Your task to perform on an android device: delete the emails in spam in the gmail app Image 0: 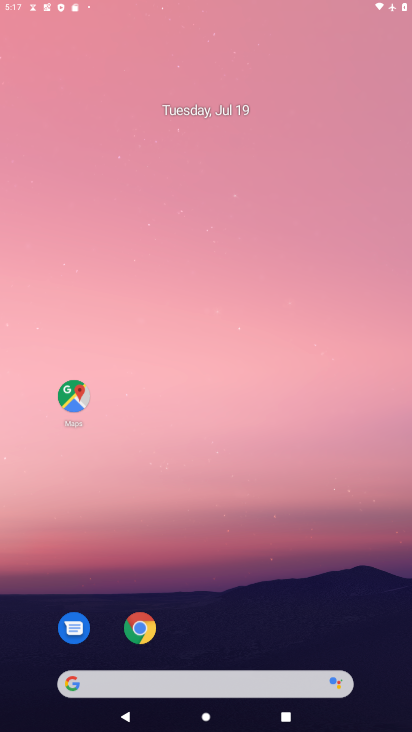
Step 0: press home button
Your task to perform on an android device: delete the emails in spam in the gmail app Image 1: 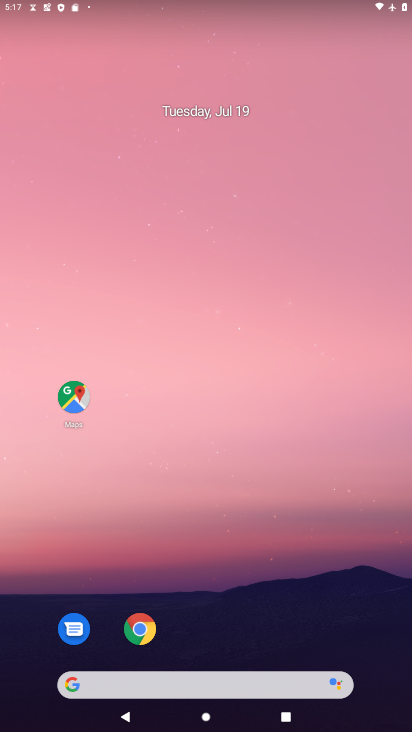
Step 1: drag from (231, 632) to (206, 14)
Your task to perform on an android device: delete the emails in spam in the gmail app Image 2: 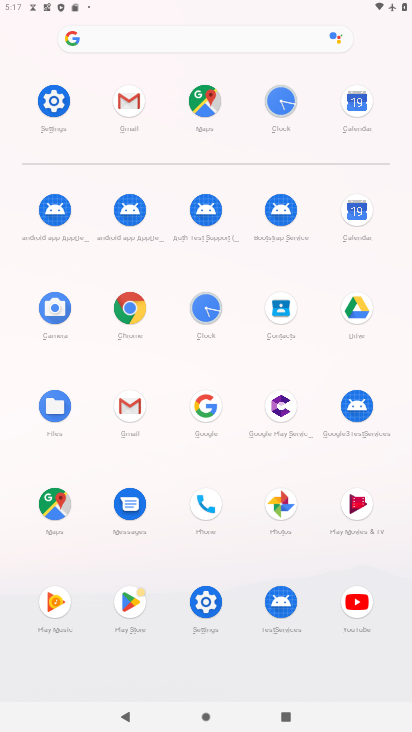
Step 2: click (128, 410)
Your task to perform on an android device: delete the emails in spam in the gmail app Image 3: 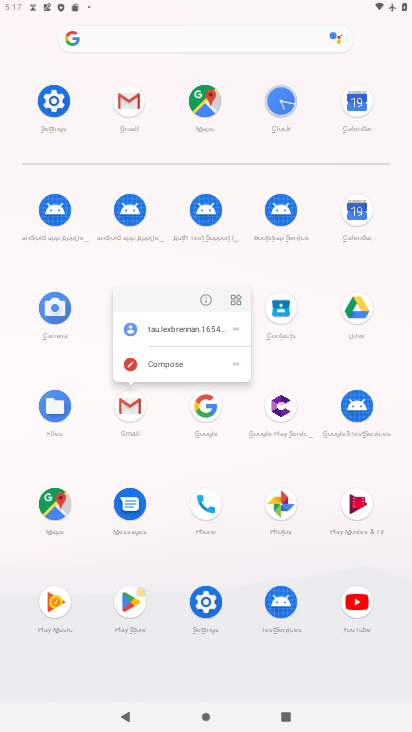
Step 3: click (124, 422)
Your task to perform on an android device: delete the emails in spam in the gmail app Image 4: 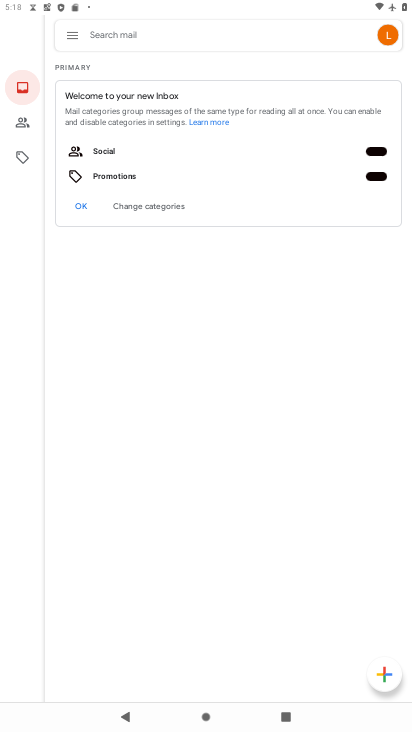
Step 4: click (68, 34)
Your task to perform on an android device: delete the emails in spam in the gmail app Image 5: 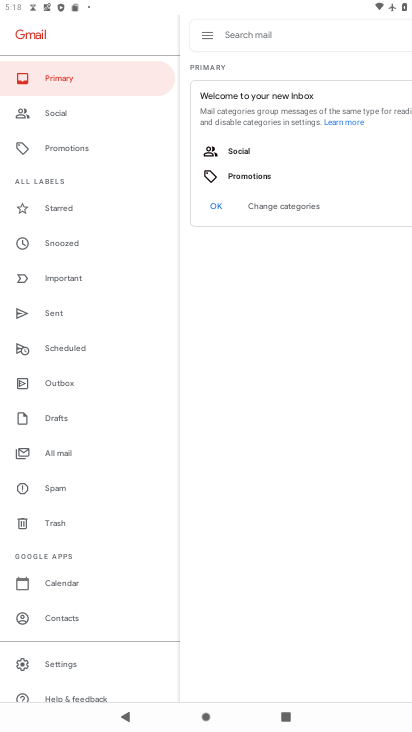
Step 5: click (59, 492)
Your task to perform on an android device: delete the emails in spam in the gmail app Image 6: 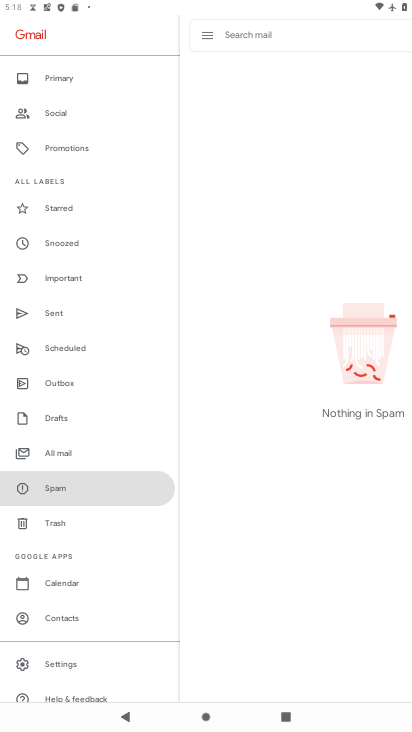
Step 6: task complete